Your task to perform on an android device: set default search engine in the chrome app Image 0: 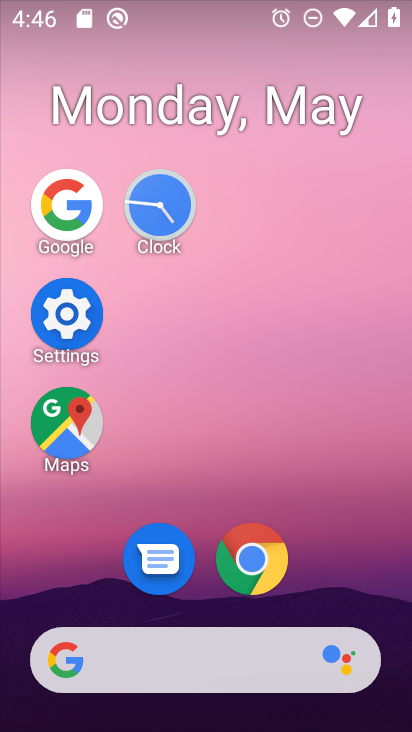
Step 0: click (265, 562)
Your task to perform on an android device: set default search engine in the chrome app Image 1: 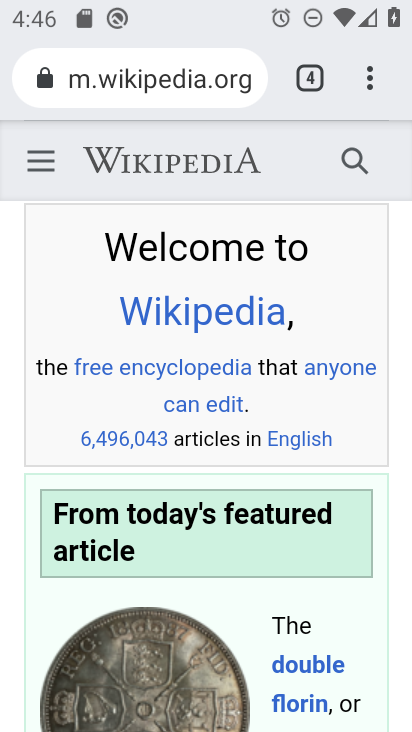
Step 1: click (369, 85)
Your task to perform on an android device: set default search engine in the chrome app Image 2: 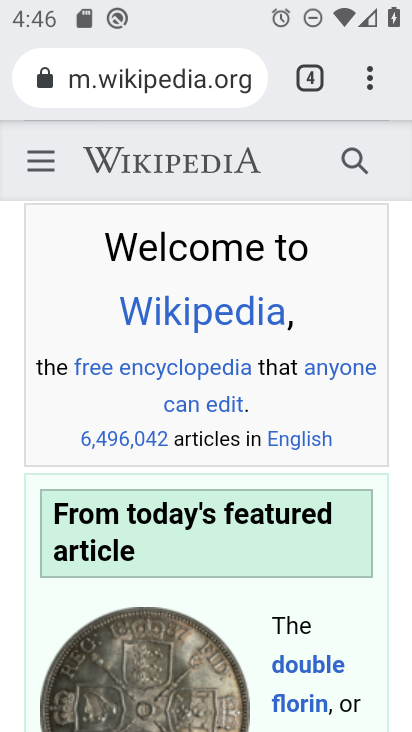
Step 2: click (375, 81)
Your task to perform on an android device: set default search engine in the chrome app Image 3: 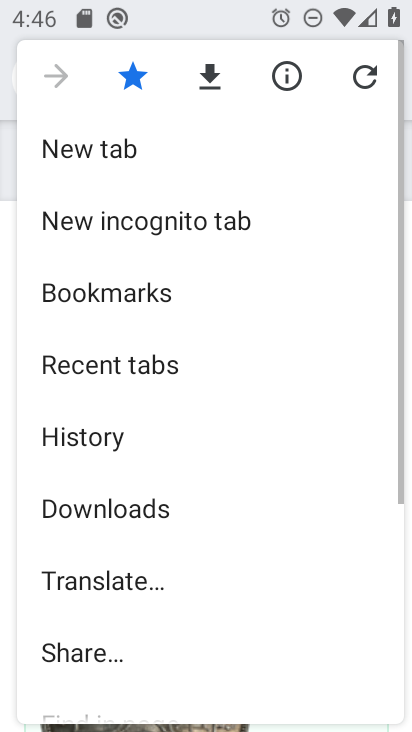
Step 3: drag from (237, 574) to (278, 242)
Your task to perform on an android device: set default search engine in the chrome app Image 4: 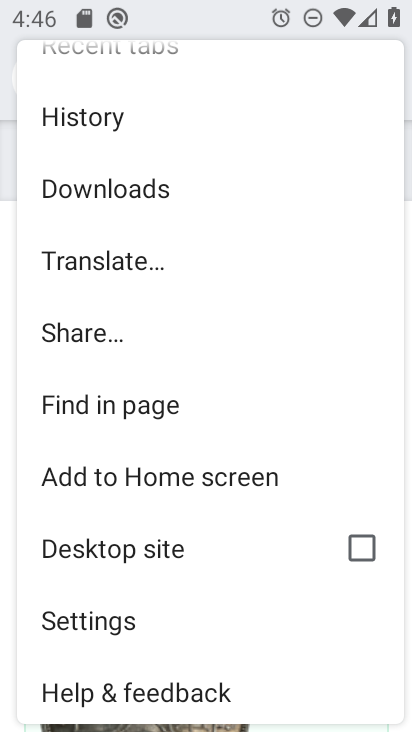
Step 4: click (203, 621)
Your task to perform on an android device: set default search engine in the chrome app Image 5: 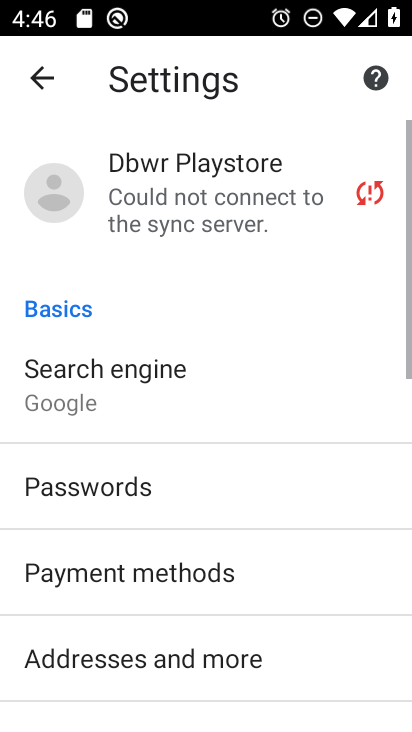
Step 5: drag from (229, 508) to (260, 239)
Your task to perform on an android device: set default search engine in the chrome app Image 6: 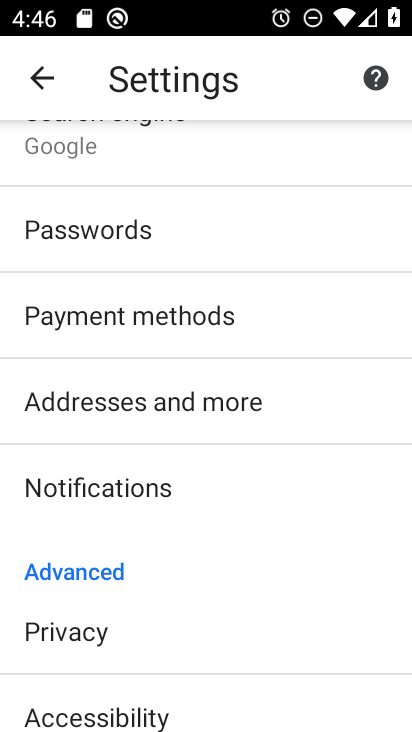
Step 6: click (242, 140)
Your task to perform on an android device: set default search engine in the chrome app Image 7: 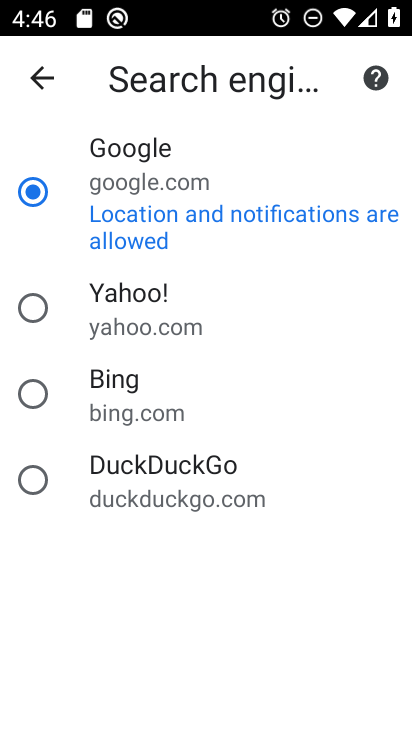
Step 7: task complete